Your task to perform on an android device: Show the shopping cart on walmart.com. Search for sony triple a on walmart.com, select the first entry, add it to the cart, then select checkout. Image 0: 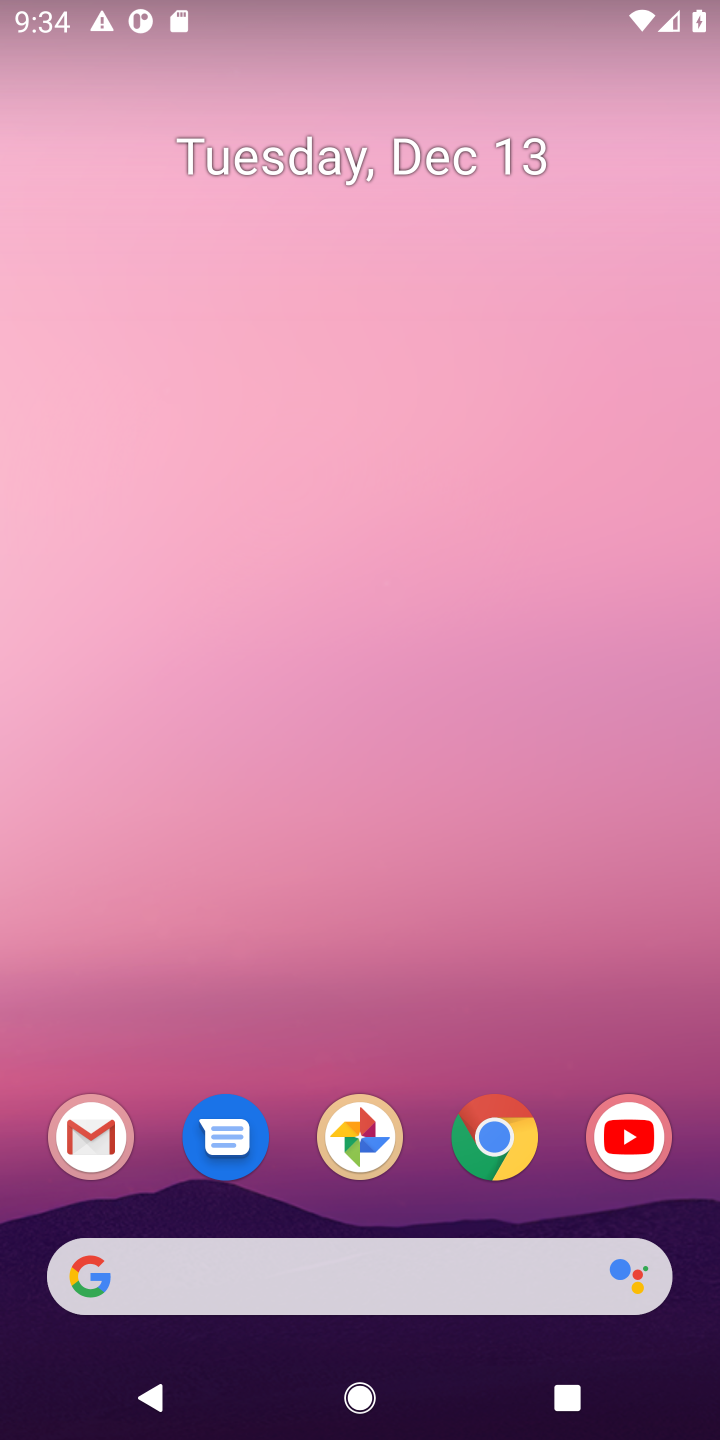
Step 0: click (473, 1131)
Your task to perform on an android device: Show the shopping cart on walmart.com. Search for sony triple a on walmart.com, select the first entry, add it to the cart, then select checkout. Image 1: 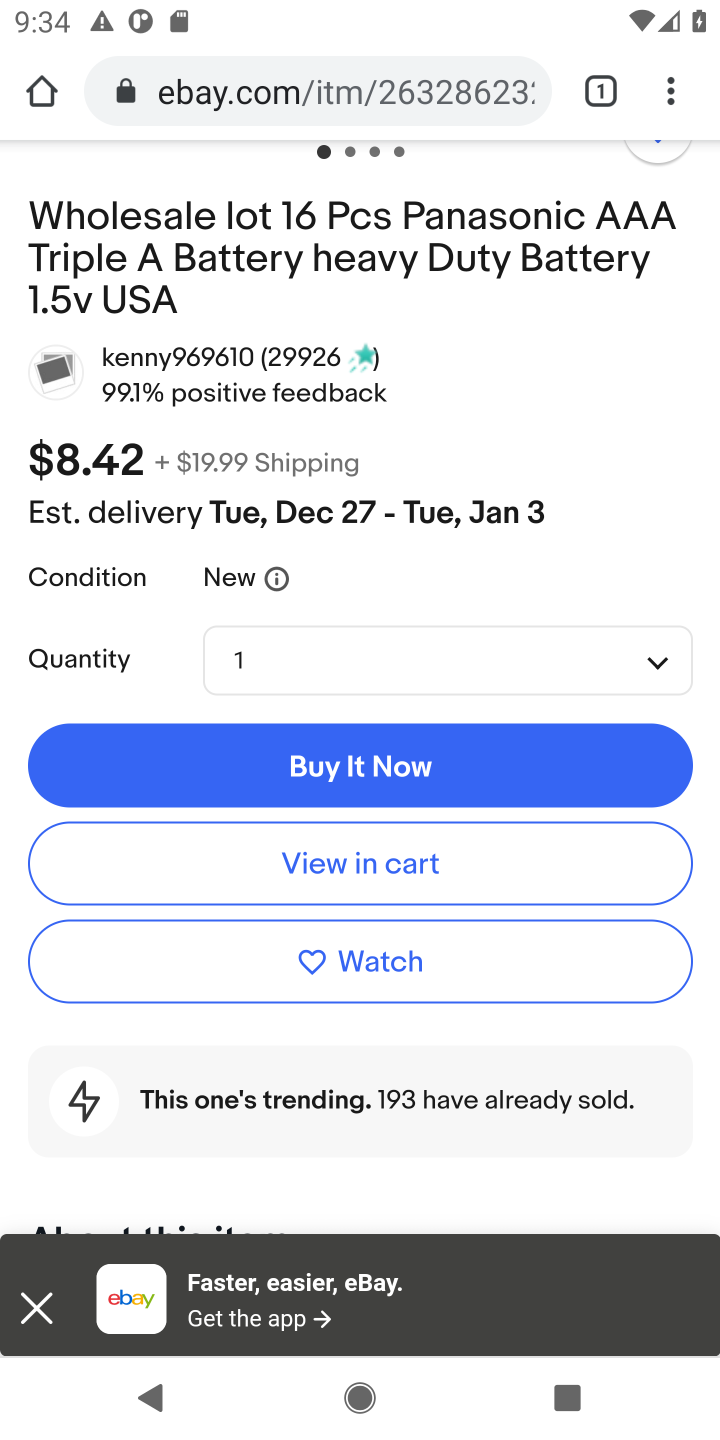
Step 1: click (599, 105)
Your task to perform on an android device: Show the shopping cart on walmart.com. Search for sony triple a on walmart.com, select the first entry, add it to the cart, then select checkout. Image 2: 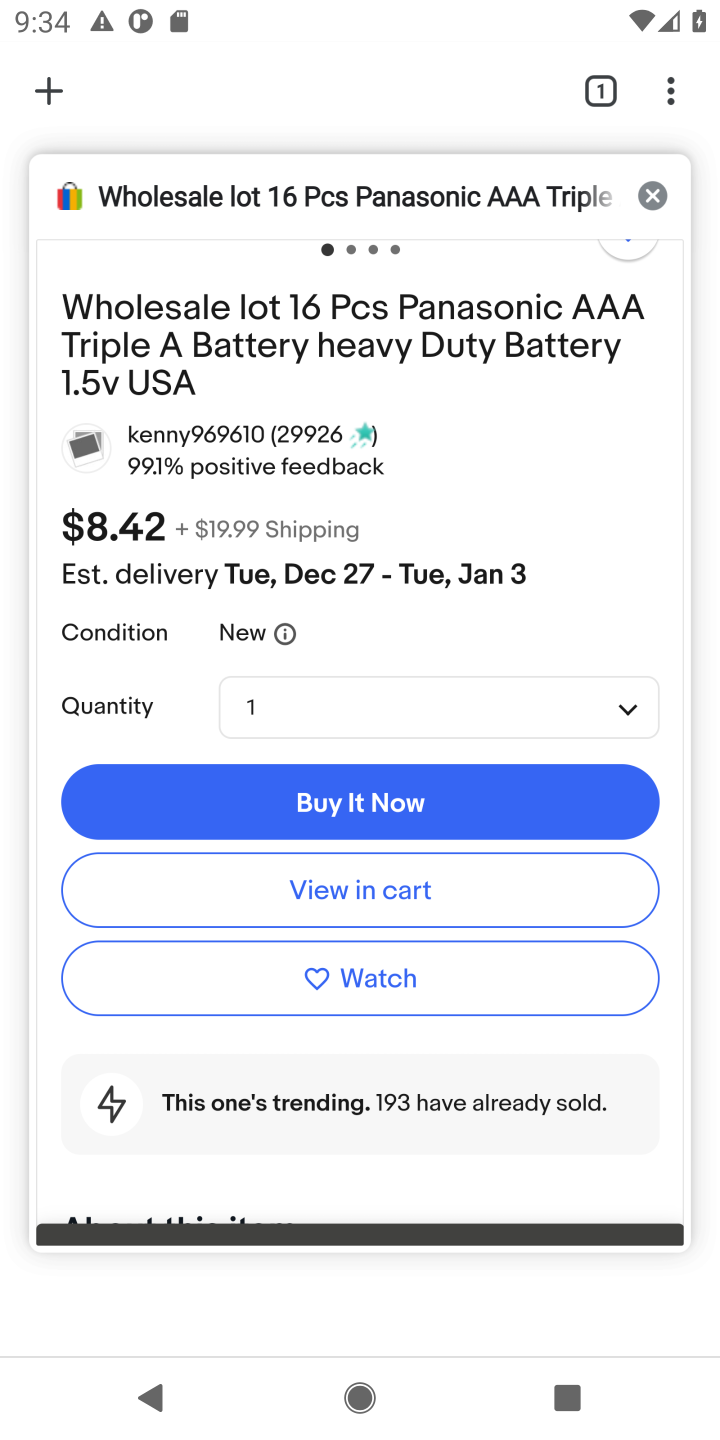
Step 2: click (41, 97)
Your task to perform on an android device: Show the shopping cart on walmart.com. Search for sony triple a on walmart.com, select the first entry, add it to the cart, then select checkout. Image 3: 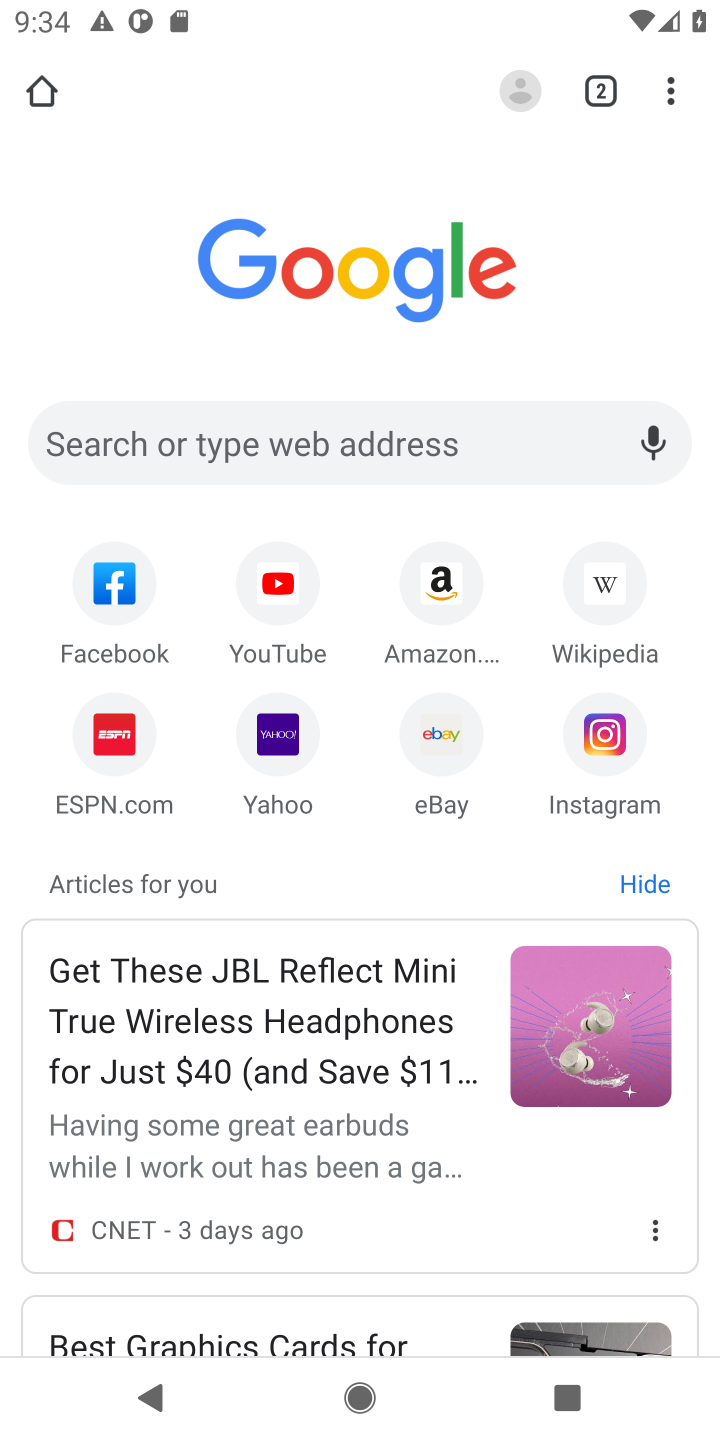
Step 3: click (348, 454)
Your task to perform on an android device: Show the shopping cart on walmart.com. Search for sony triple a on walmart.com, select the first entry, add it to the cart, then select checkout. Image 4: 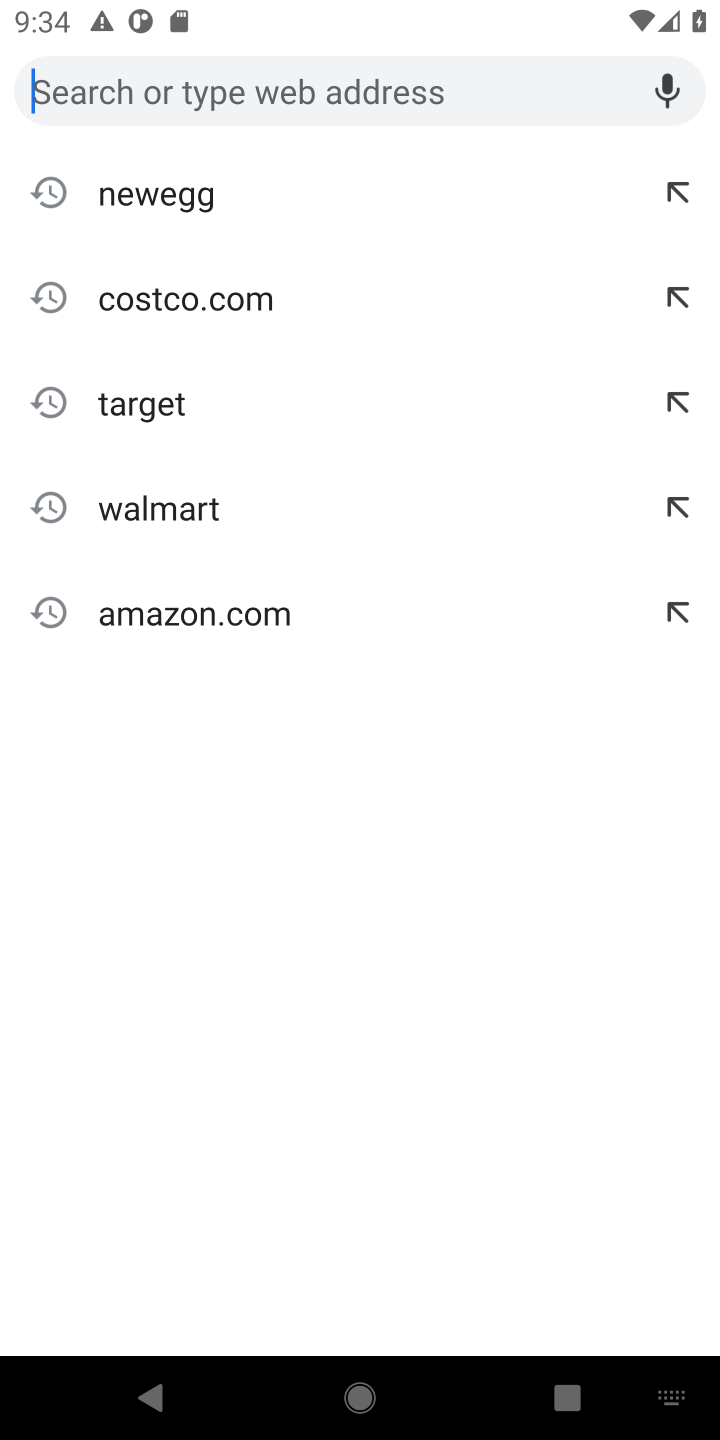
Step 4: click (168, 512)
Your task to perform on an android device: Show the shopping cart on walmart.com. Search for sony triple a on walmart.com, select the first entry, add it to the cart, then select checkout. Image 5: 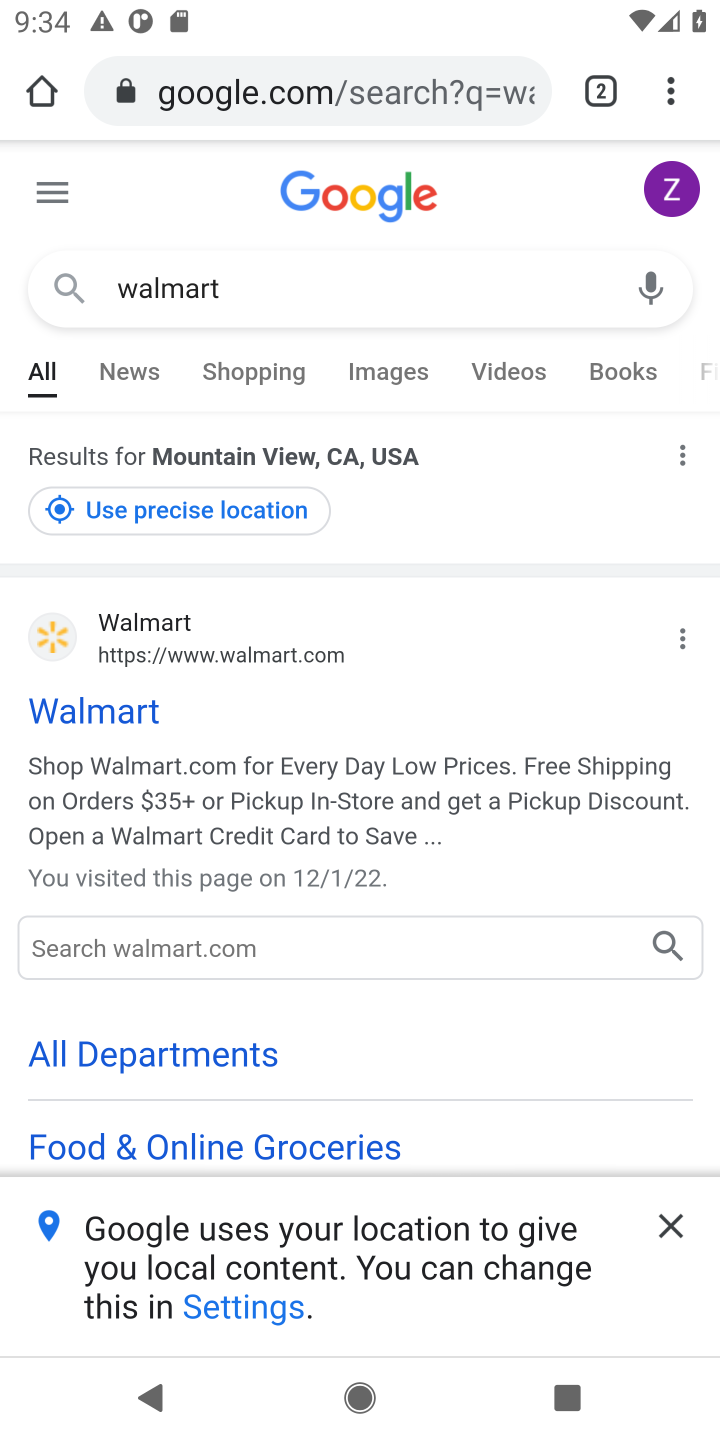
Step 5: click (135, 951)
Your task to perform on an android device: Show the shopping cart on walmart.com. Search for sony triple a on walmart.com, select the first entry, add it to the cart, then select checkout. Image 6: 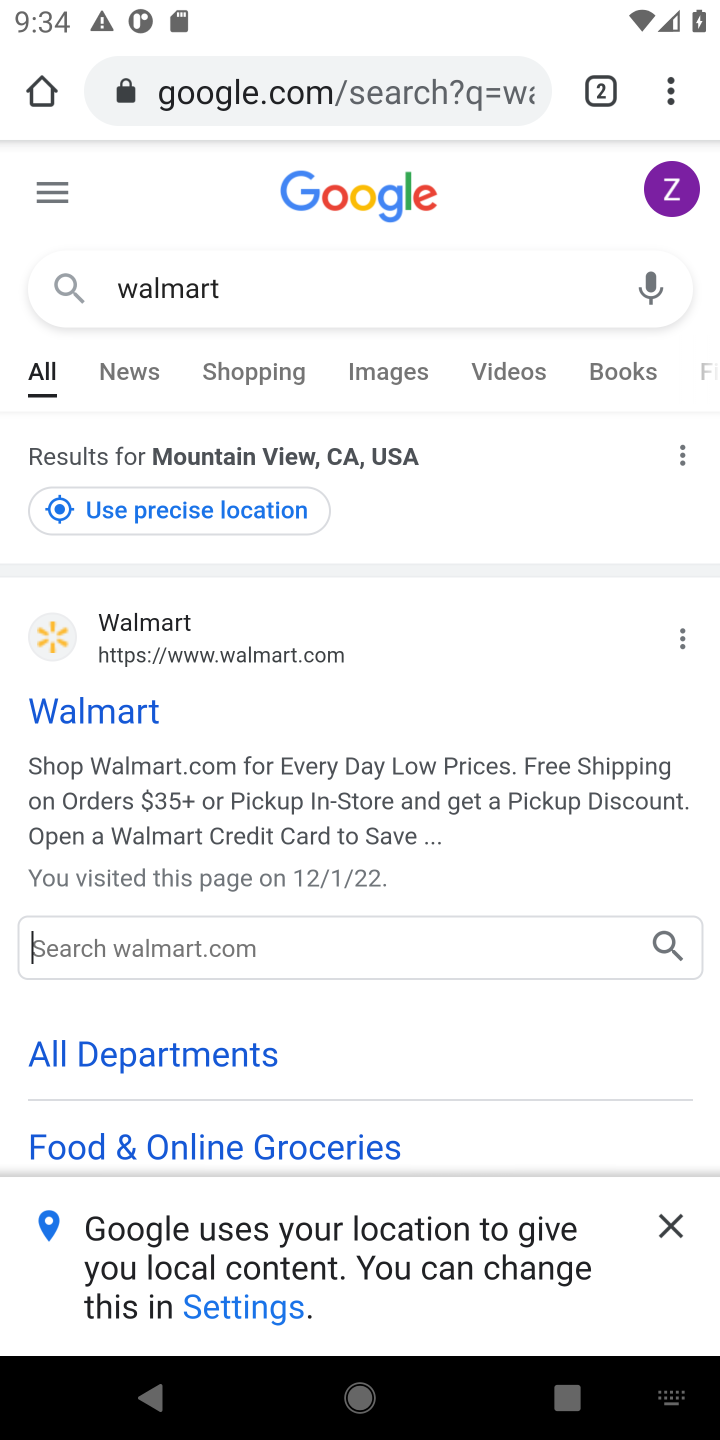
Step 6: type "sony triple a "
Your task to perform on an android device: Show the shopping cart on walmart.com. Search for sony triple a on walmart.com, select the first entry, add it to the cart, then select checkout. Image 7: 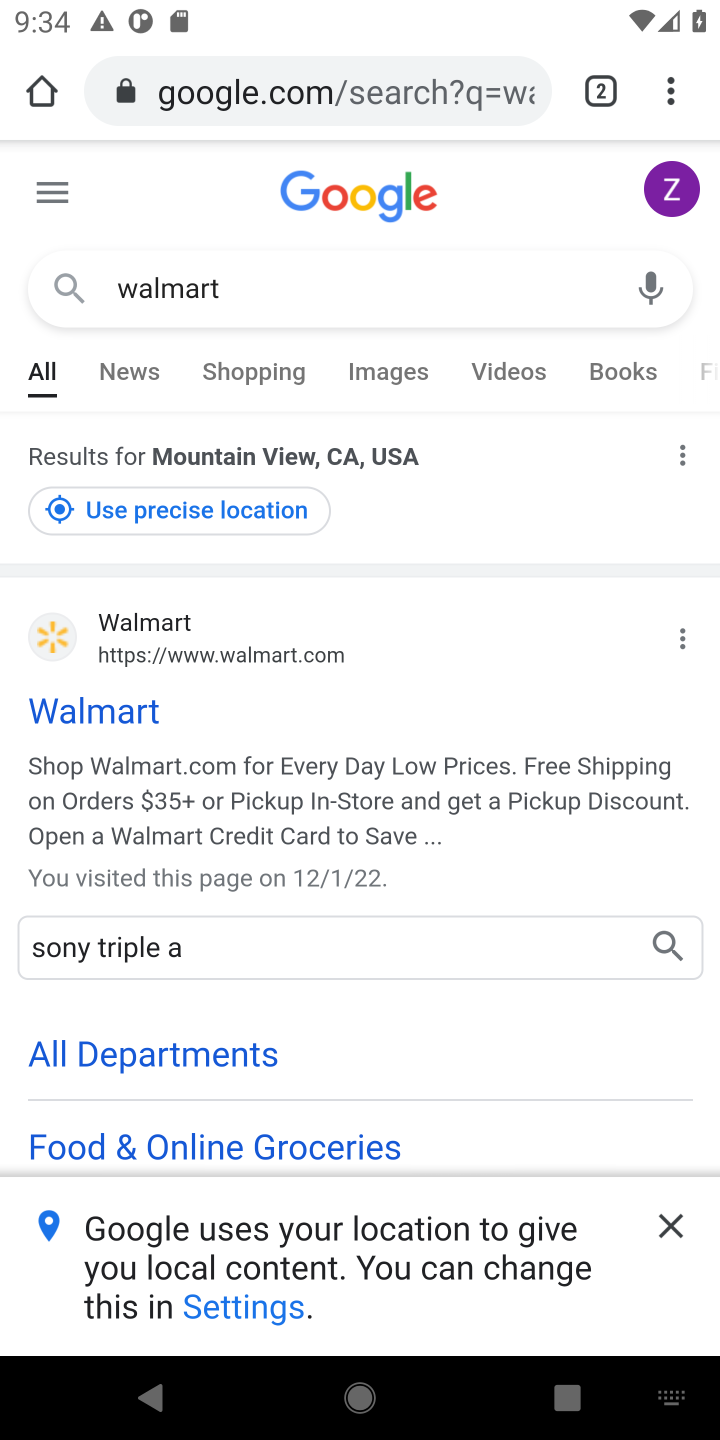
Step 7: click (683, 1231)
Your task to perform on an android device: Show the shopping cart on walmart.com. Search for sony triple a on walmart.com, select the first entry, add it to the cart, then select checkout. Image 8: 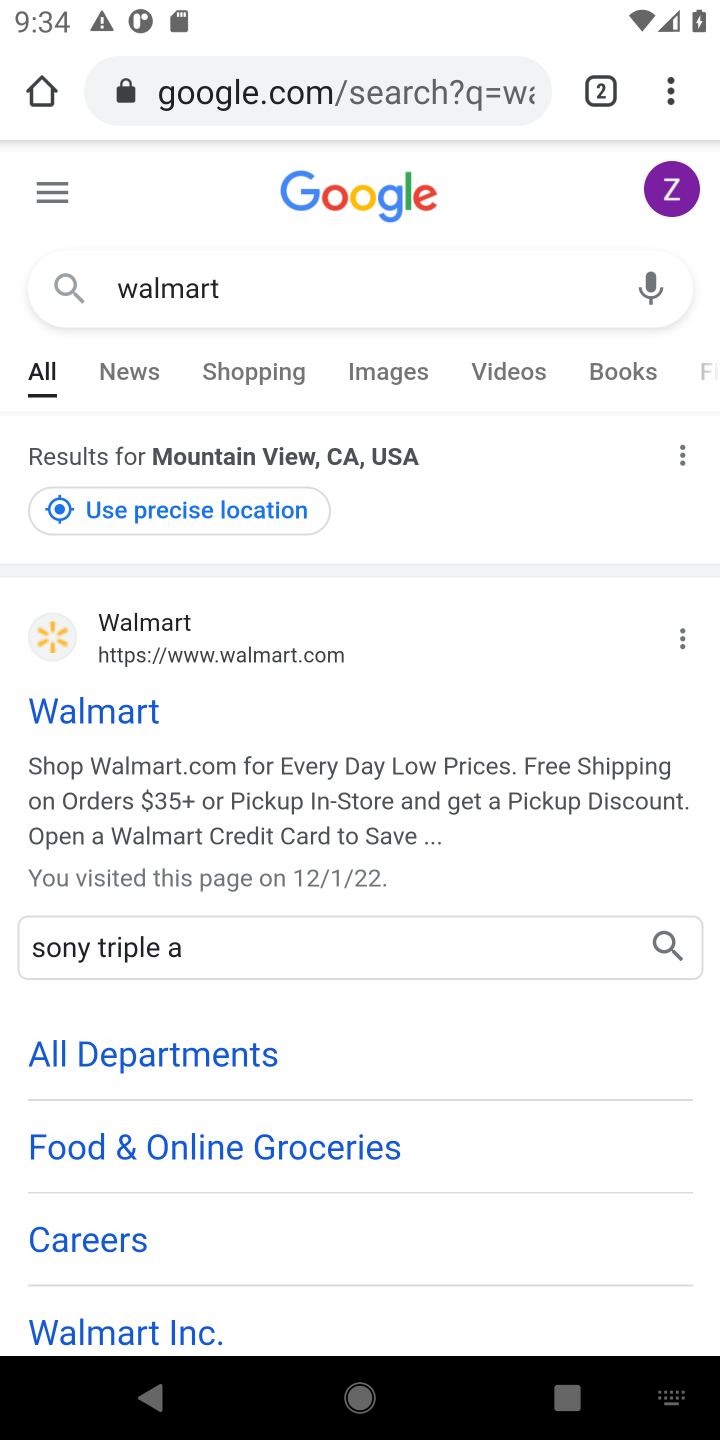
Step 8: click (667, 948)
Your task to perform on an android device: Show the shopping cart on walmart.com. Search for sony triple a on walmart.com, select the first entry, add it to the cart, then select checkout. Image 9: 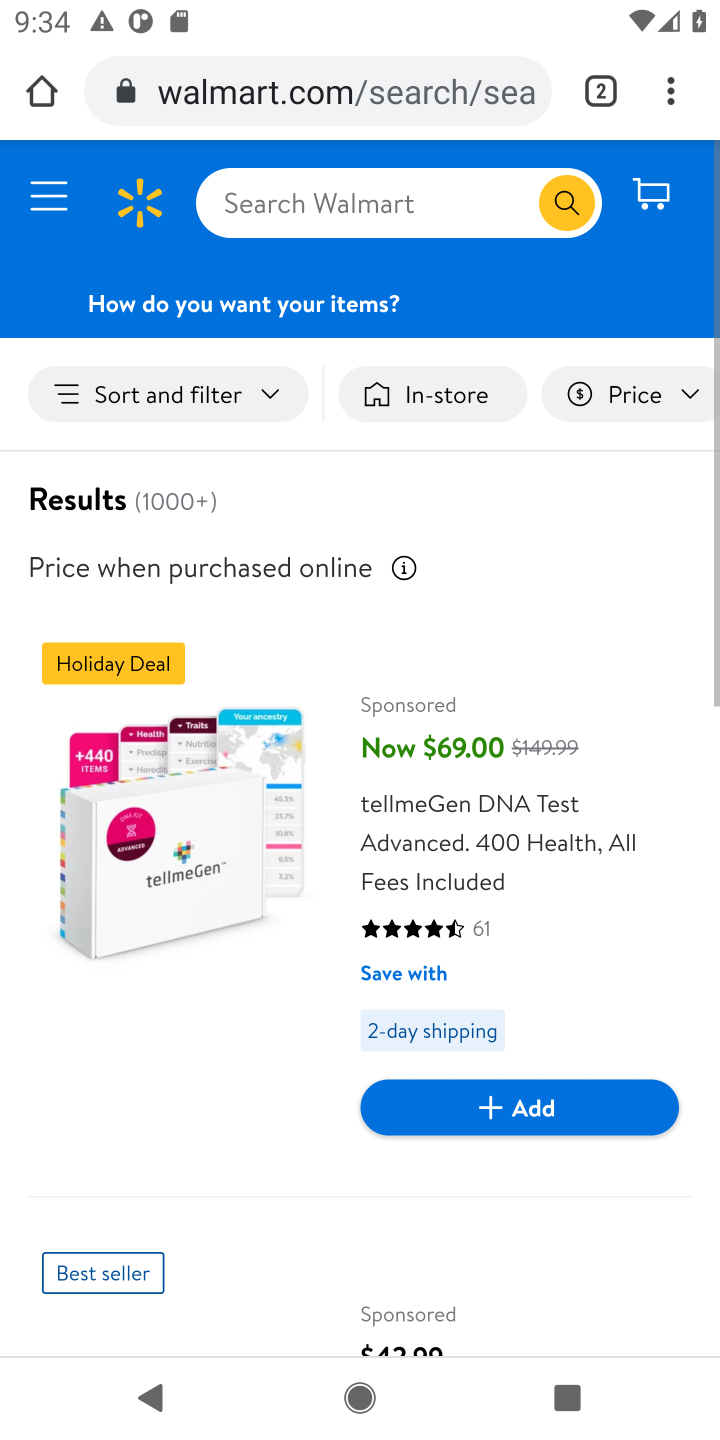
Step 9: click (667, 948)
Your task to perform on an android device: Show the shopping cart on walmart.com. Search for sony triple a on walmart.com, select the first entry, add it to the cart, then select checkout. Image 10: 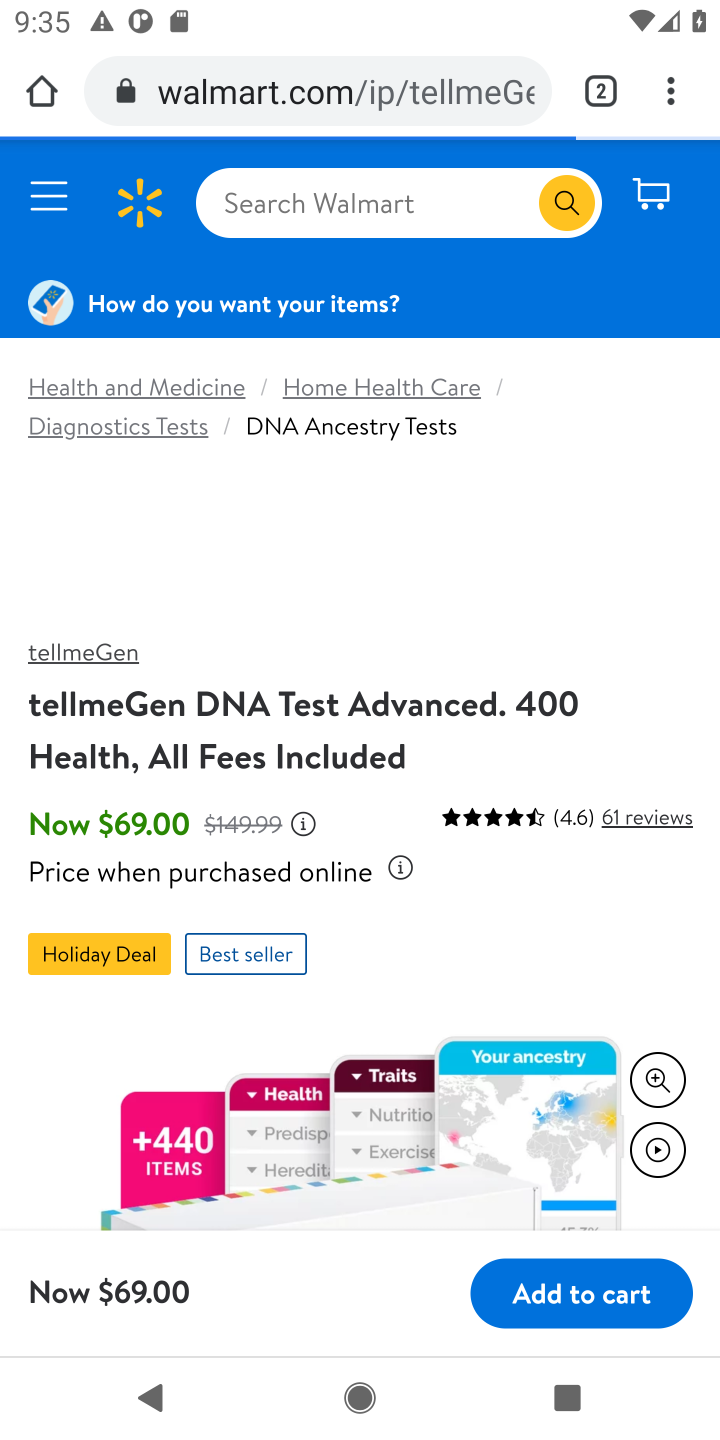
Step 10: click (675, 1066)
Your task to perform on an android device: Show the shopping cart on walmart.com. Search for sony triple a on walmart.com, select the first entry, add it to the cart, then select checkout. Image 11: 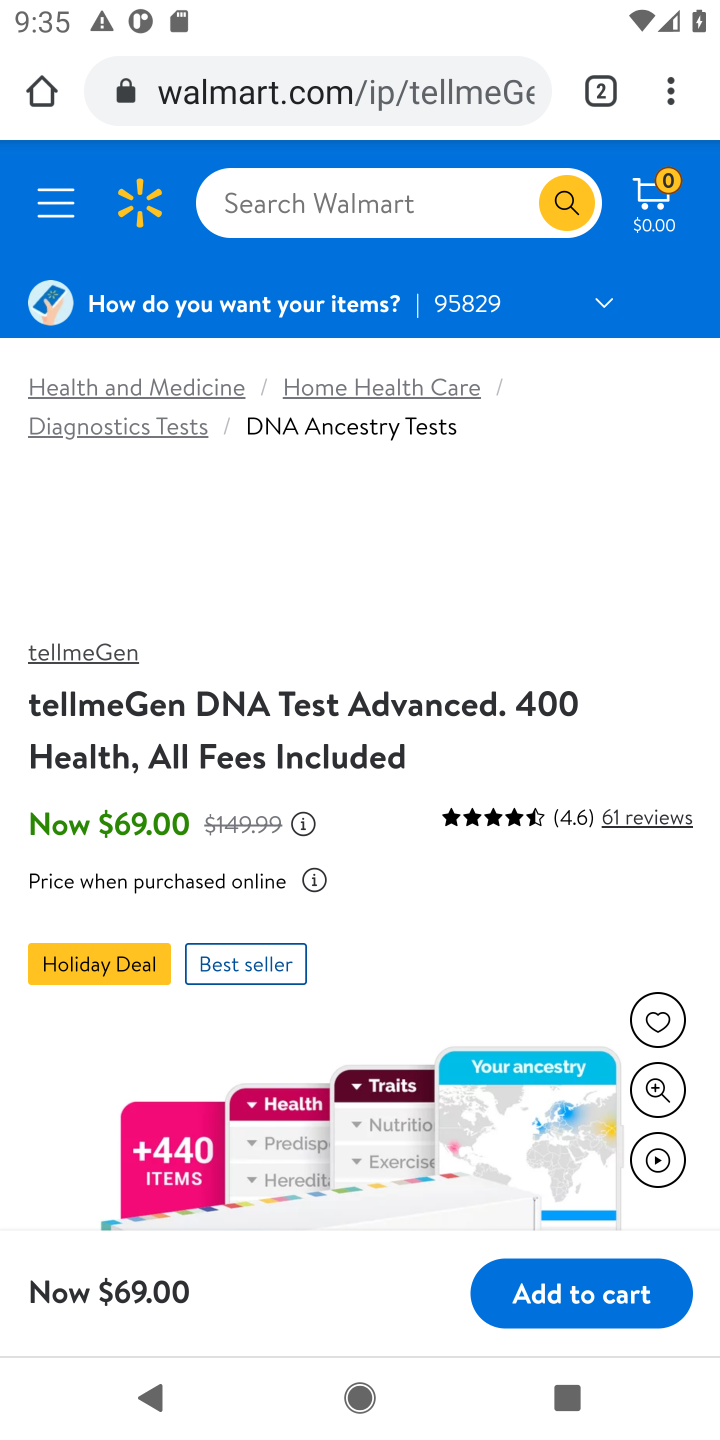
Step 11: press back button
Your task to perform on an android device: Show the shopping cart on walmart.com. Search for sony triple a on walmart.com, select the first entry, add it to the cart, then select checkout. Image 12: 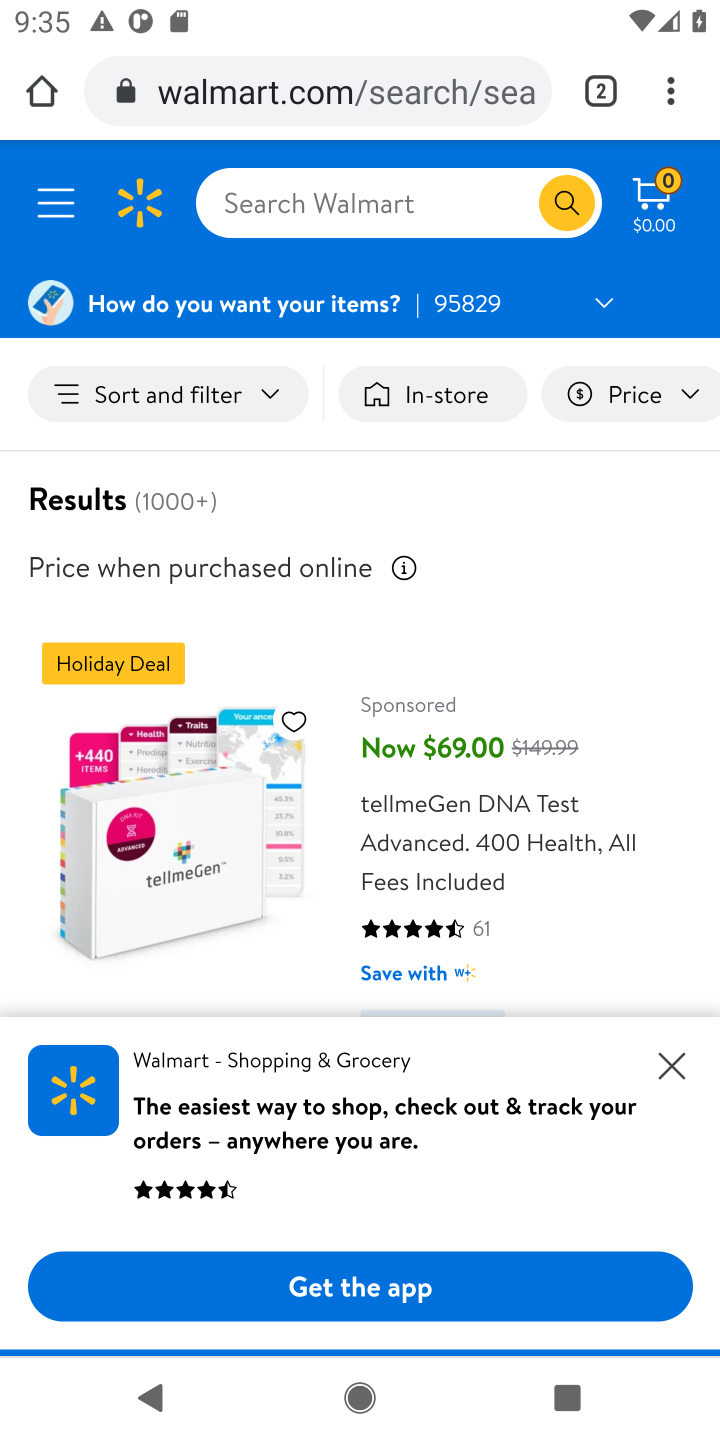
Step 12: click (670, 1051)
Your task to perform on an android device: Show the shopping cart on walmart.com. Search for sony triple a on walmart.com, select the first entry, add it to the cart, then select checkout. Image 13: 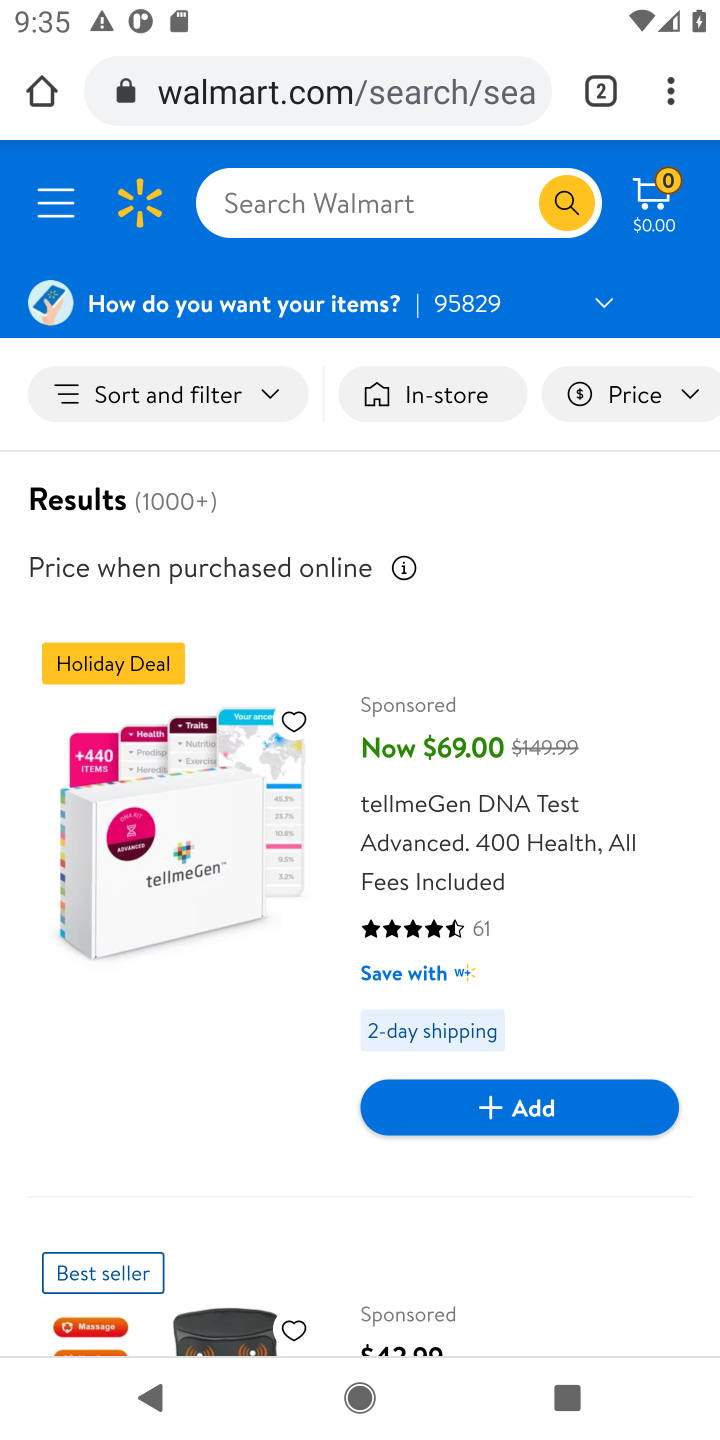
Step 13: click (372, 187)
Your task to perform on an android device: Show the shopping cart on walmart.com. Search for sony triple a on walmart.com, select the first entry, add it to the cart, then select checkout. Image 14: 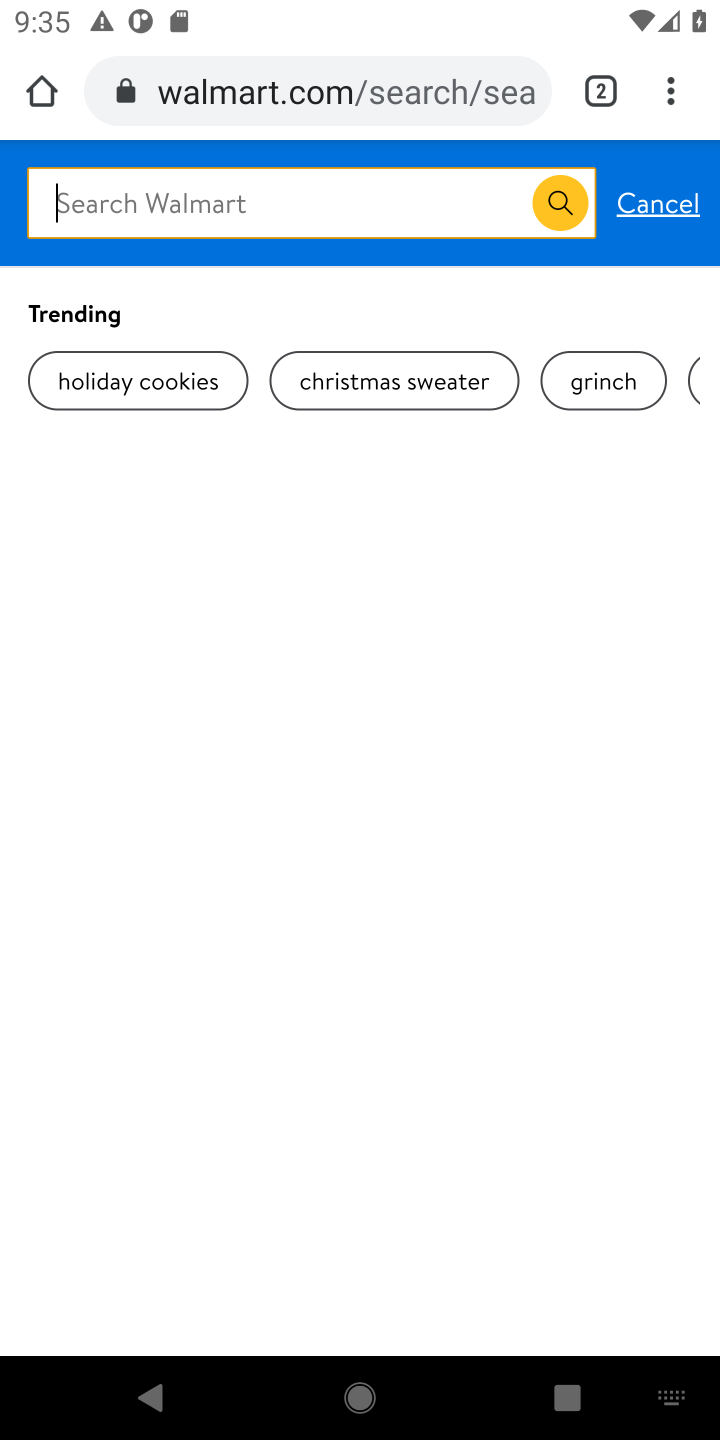
Step 14: type "sony triple a "
Your task to perform on an android device: Show the shopping cart on walmart.com. Search for sony triple a on walmart.com, select the first entry, add it to the cart, then select checkout. Image 15: 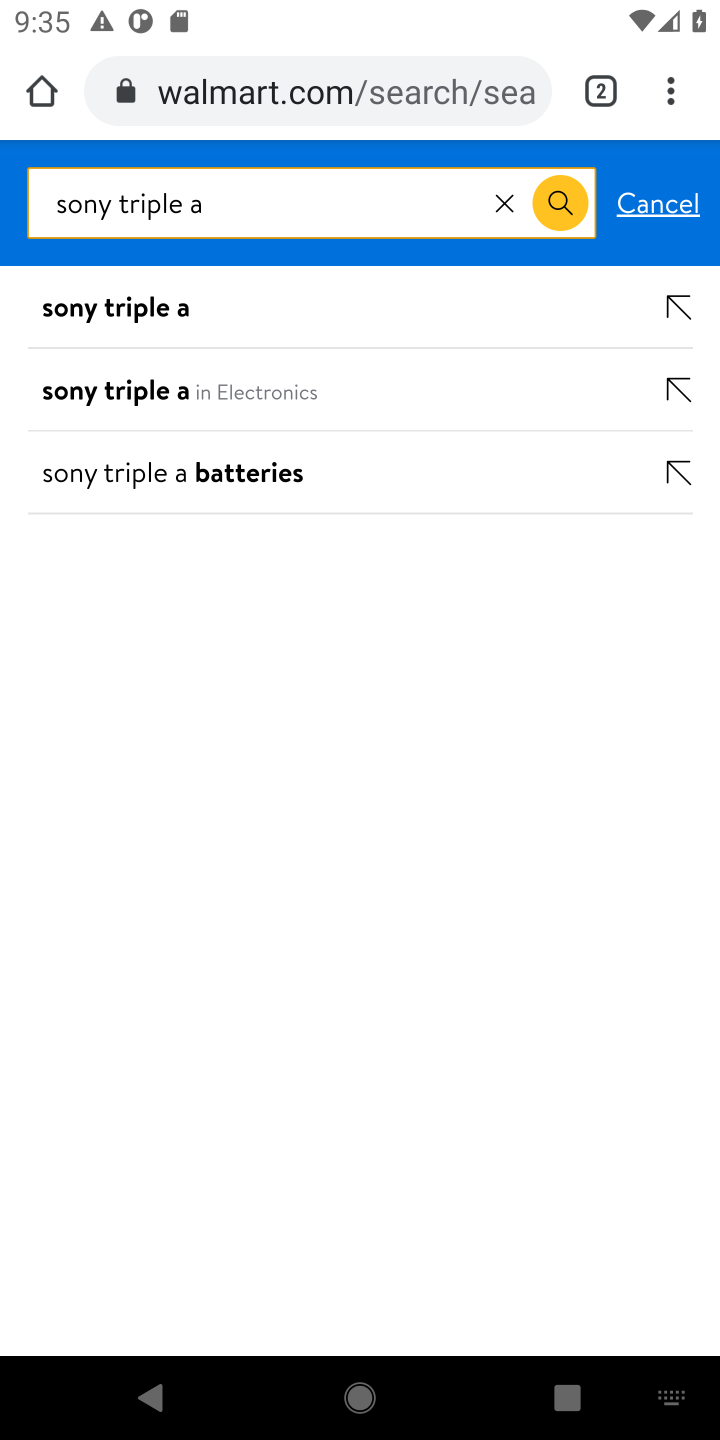
Step 15: click (103, 393)
Your task to perform on an android device: Show the shopping cart on walmart.com. Search for sony triple a on walmart.com, select the first entry, add it to the cart, then select checkout. Image 16: 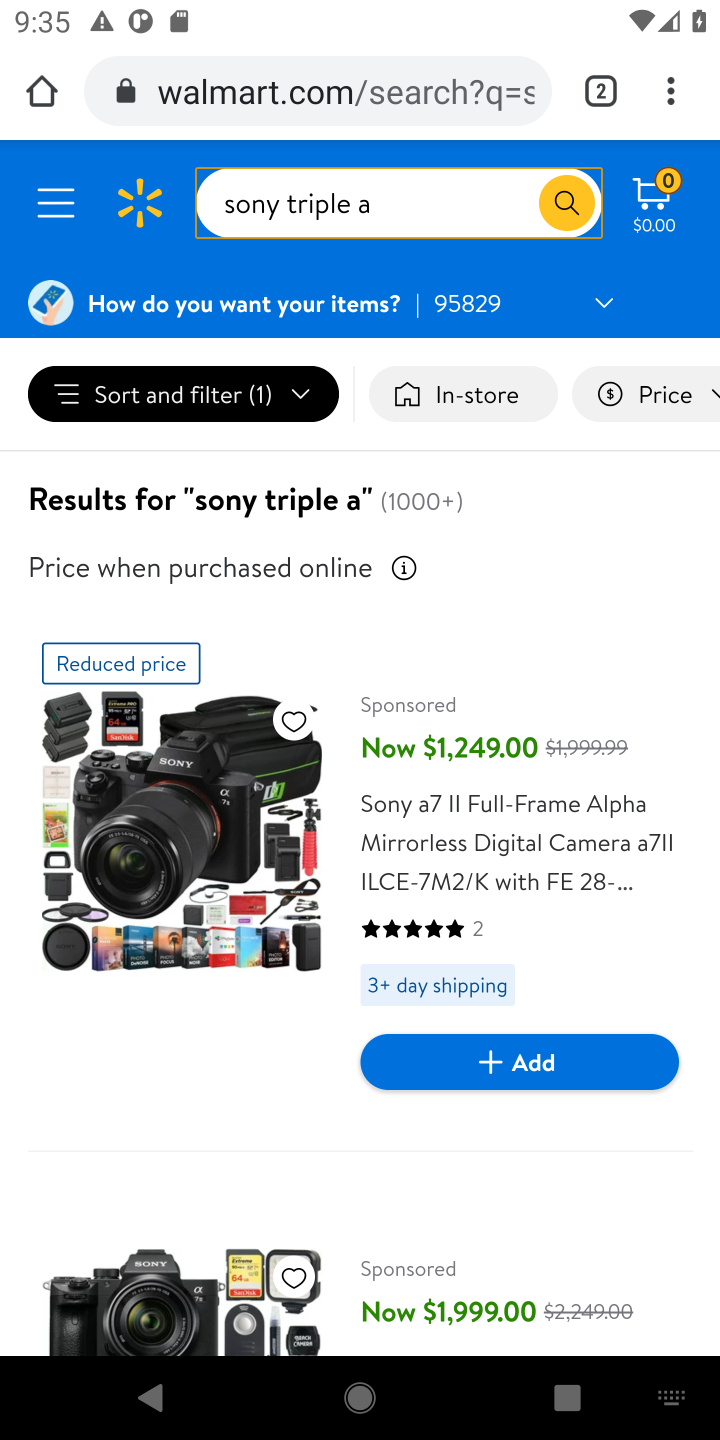
Step 16: type " batteries"
Your task to perform on an android device: Show the shopping cart on walmart.com. Search for sony triple a on walmart.com, select the first entry, add it to the cart, then select checkout. Image 17: 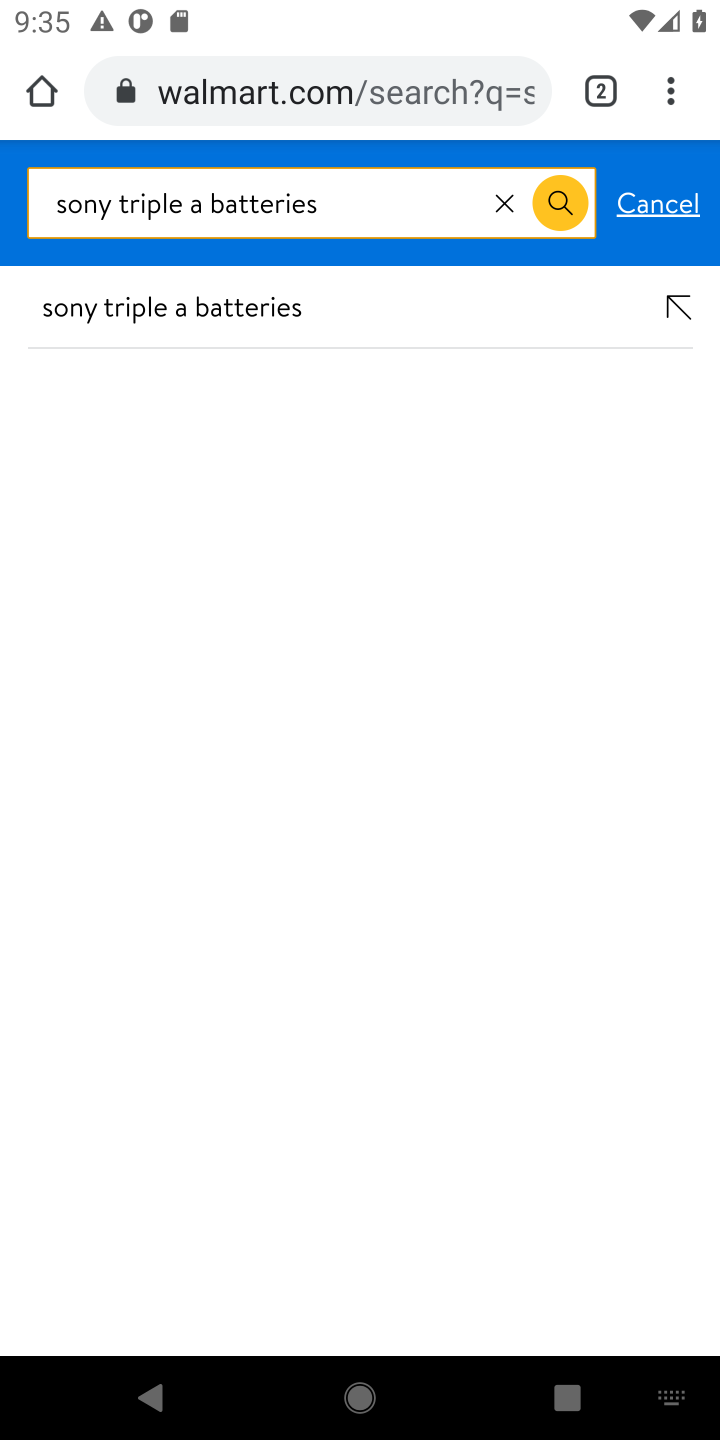
Step 17: click (316, 308)
Your task to perform on an android device: Show the shopping cart on walmart.com. Search for sony triple a on walmart.com, select the first entry, add it to the cart, then select checkout. Image 18: 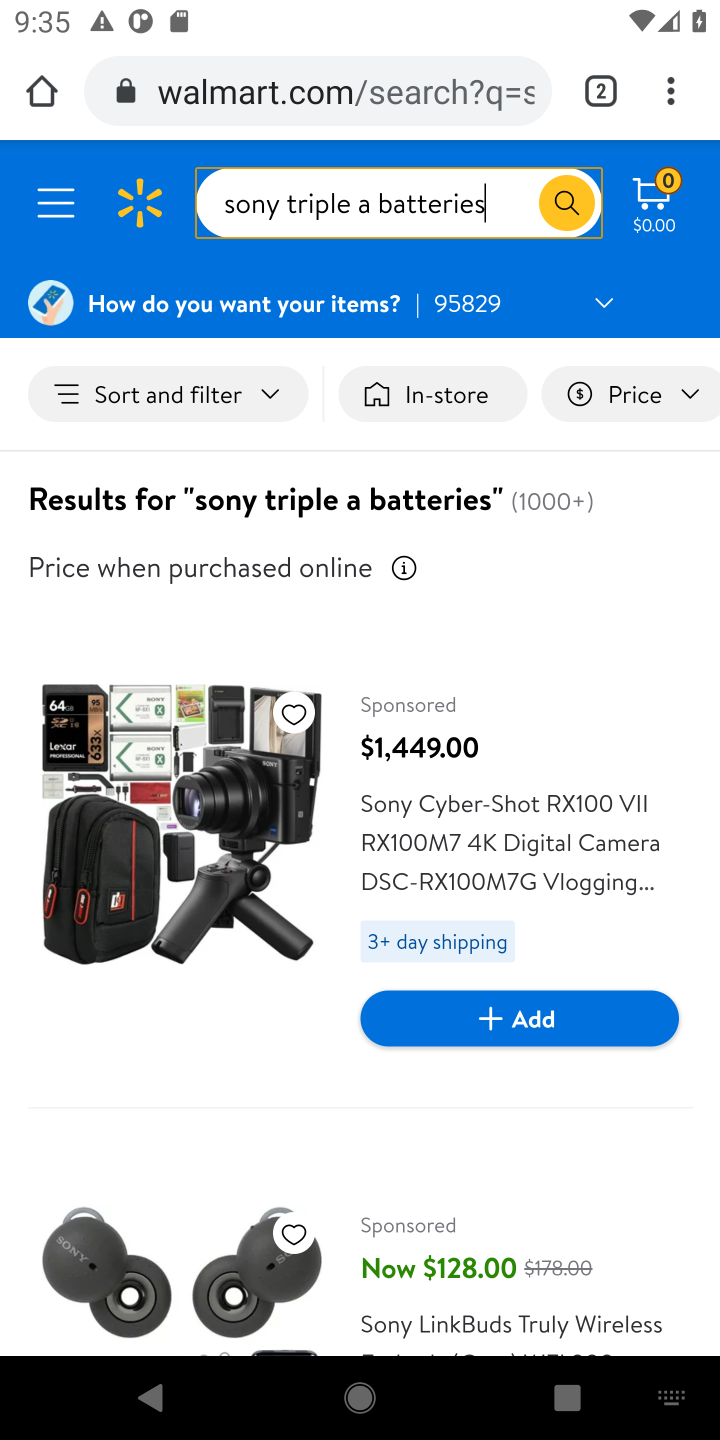
Step 18: task complete